Your task to perform on an android device: remove spam from my inbox in the gmail app Image 0: 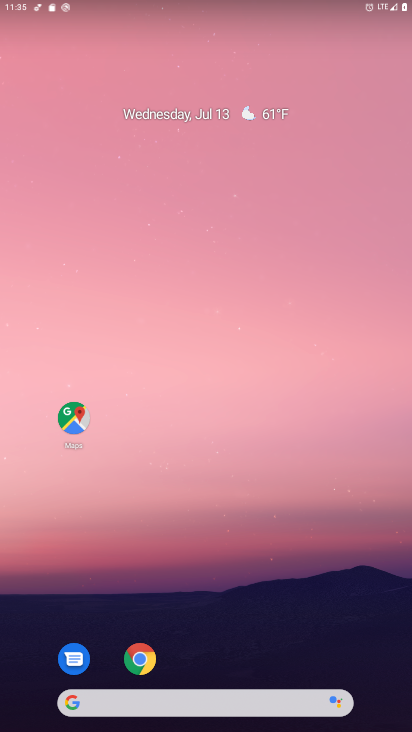
Step 0: press home button
Your task to perform on an android device: remove spam from my inbox in the gmail app Image 1: 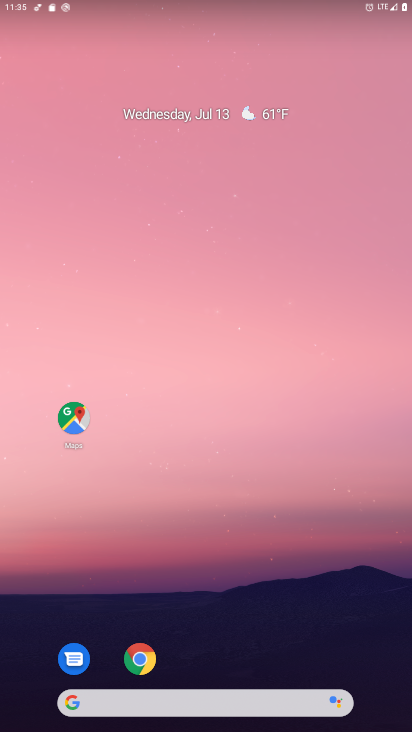
Step 1: drag from (210, 673) to (217, 32)
Your task to perform on an android device: remove spam from my inbox in the gmail app Image 2: 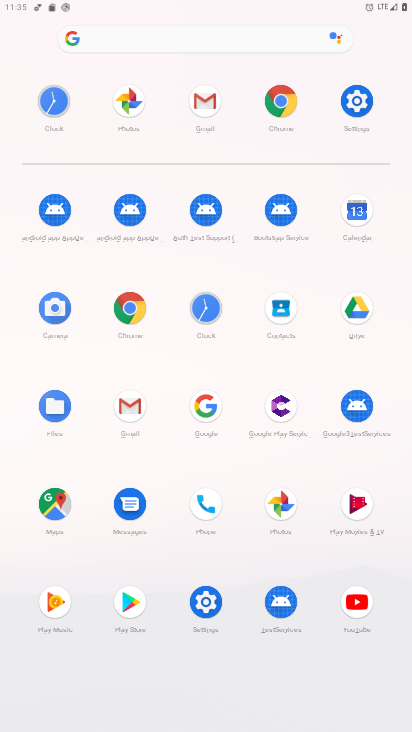
Step 2: click (129, 402)
Your task to perform on an android device: remove spam from my inbox in the gmail app Image 3: 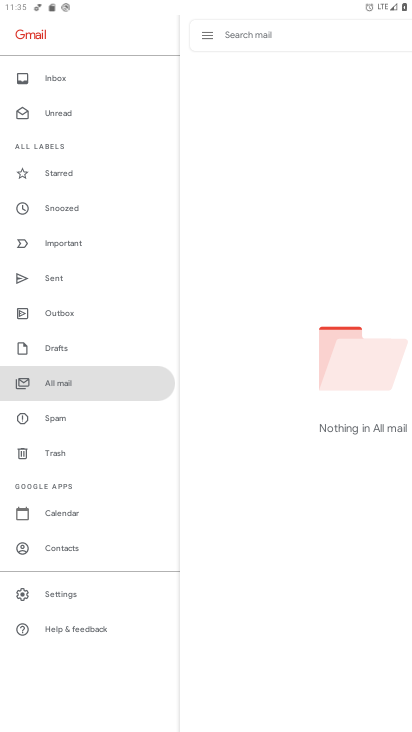
Step 3: click (60, 417)
Your task to perform on an android device: remove spam from my inbox in the gmail app Image 4: 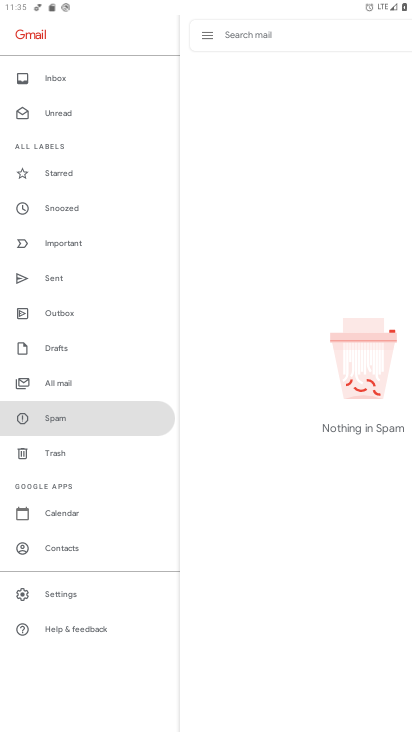
Step 4: task complete